Your task to perform on an android device: toggle improve location accuracy Image 0: 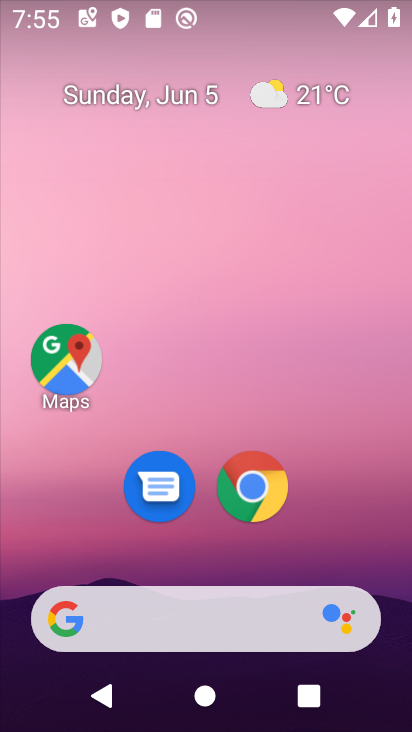
Step 0: drag from (204, 611) to (254, 23)
Your task to perform on an android device: toggle improve location accuracy Image 1: 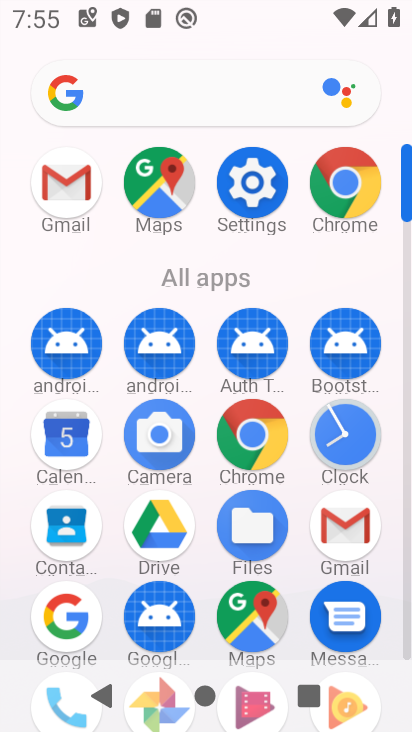
Step 1: click (250, 170)
Your task to perform on an android device: toggle improve location accuracy Image 2: 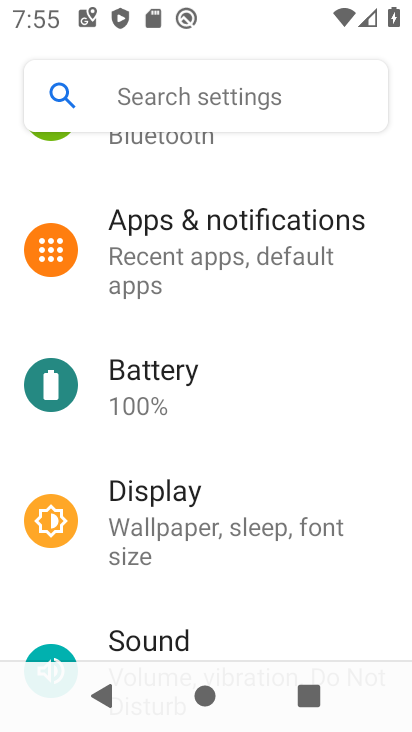
Step 2: drag from (203, 586) to (266, 154)
Your task to perform on an android device: toggle improve location accuracy Image 3: 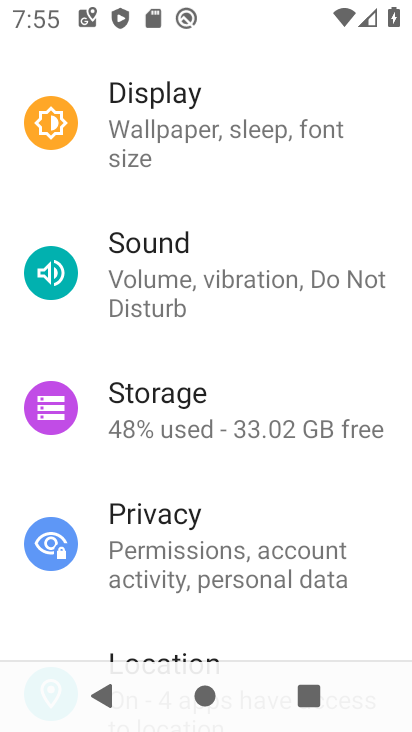
Step 3: drag from (174, 552) to (222, 259)
Your task to perform on an android device: toggle improve location accuracy Image 4: 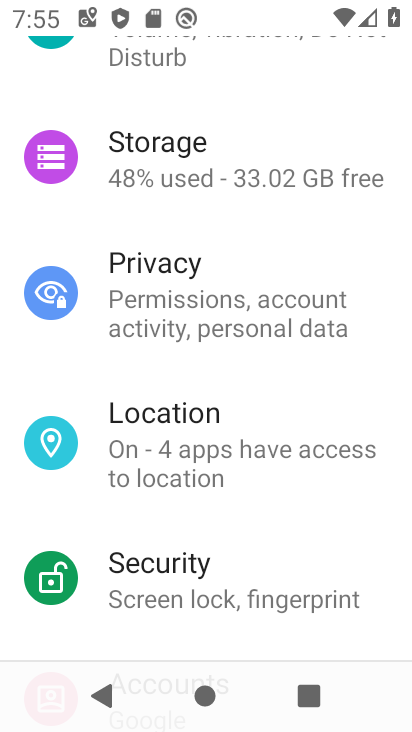
Step 4: click (190, 449)
Your task to perform on an android device: toggle improve location accuracy Image 5: 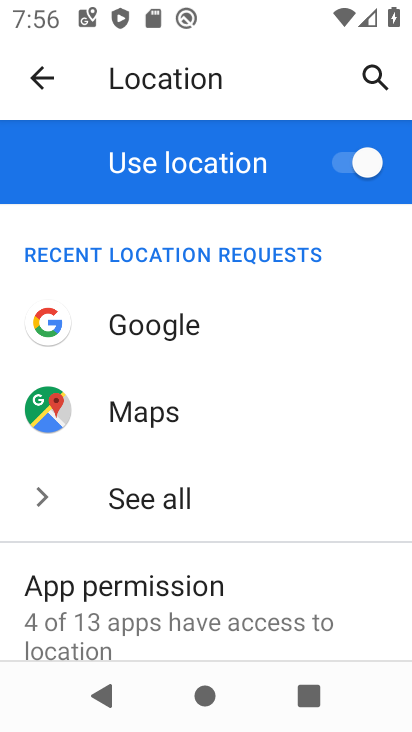
Step 5: drag from (216, 606) to (272, 202)
Your task to perform on an android device: toggle improve location accuracy Image 6: 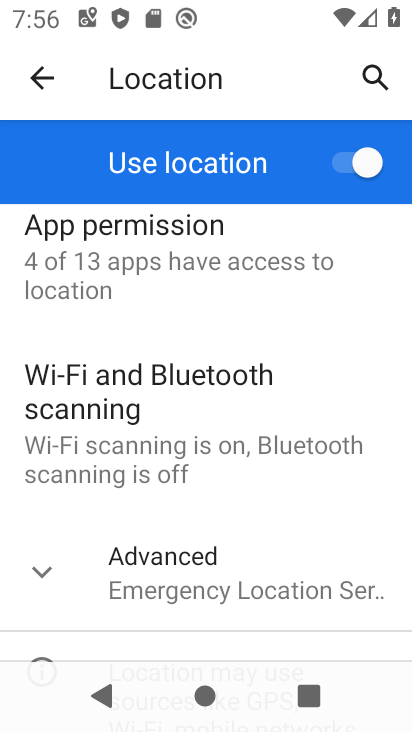
Step 6: click (167, 576)
Your task to perform on an android device: toggle improve location accuracy Image 7: 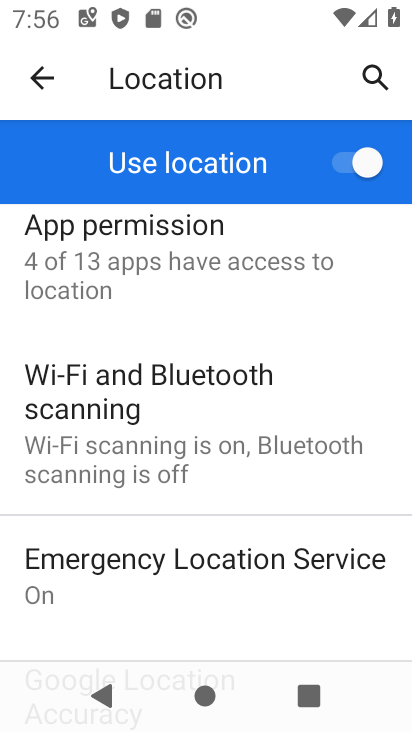
Step 7: drag from (202, 606) to (252, 352)
Your task to perform on an android device: toggle improve location accuracy Image 8: 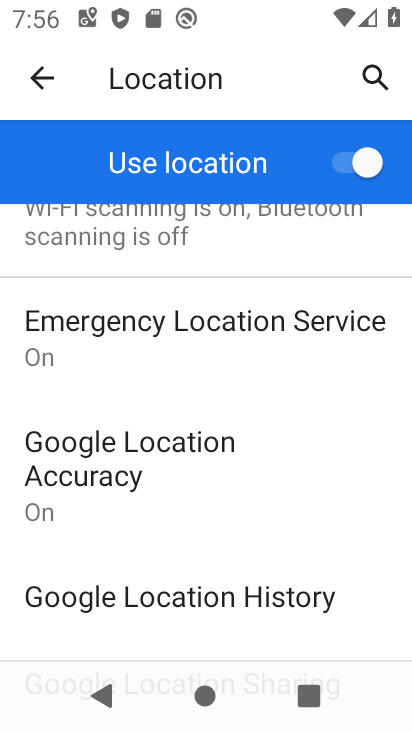
Step 8: click (140, 456)
Your task to perform on an android device: toggle improve location accuracy Image 9: 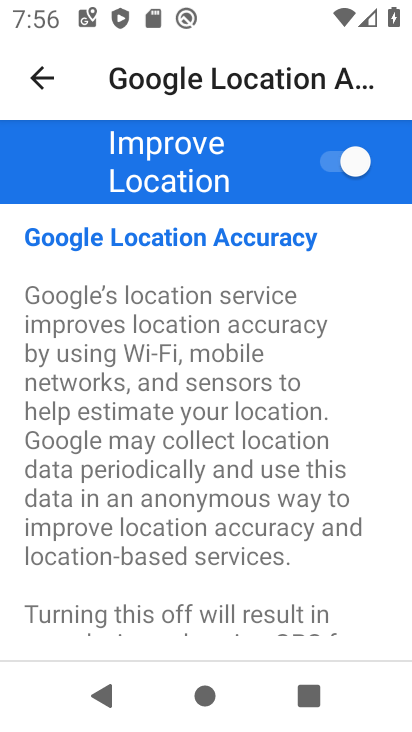
Step 9: click (340, 156)
Your task to perform on an android device: toggle improve location accuracy Image 10: 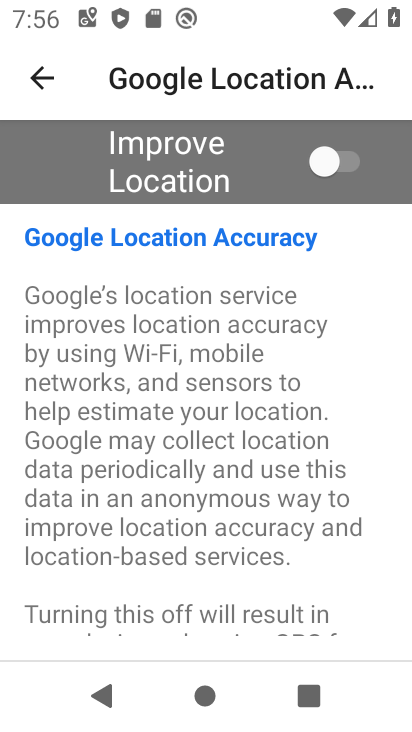
Step 10: task complete